Your task to perform on an android device: change your default location settings in chrome Image 0: 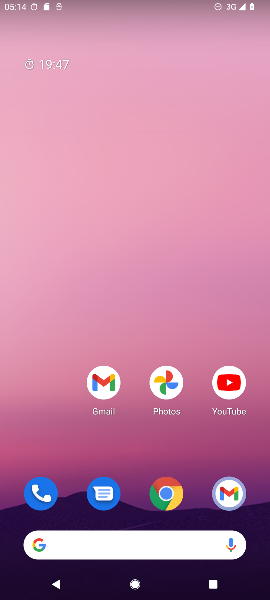
Step 0: press home button
Your task to perform on an android device: change your default location settings in chrome Image 1: 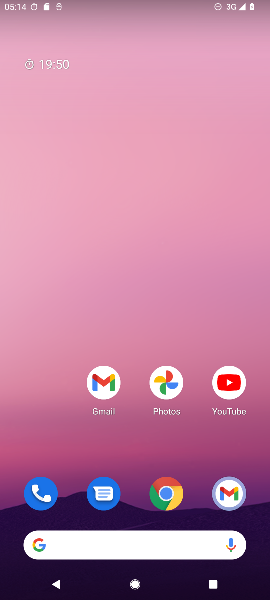
Step 1: drag from (60, 453) to (60, 144)
Your task to perform on an android device: change your default location settings in chrome Image 2: 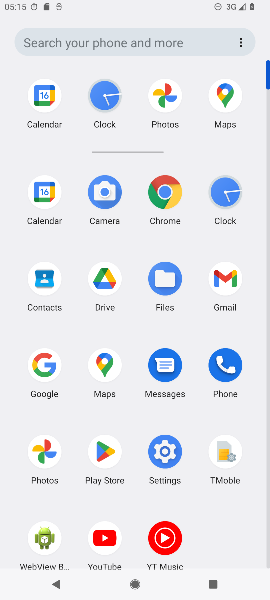
Step 2: click (174, 197)
Your task to perform on an android device: change your default location settings in chrome Image 3: 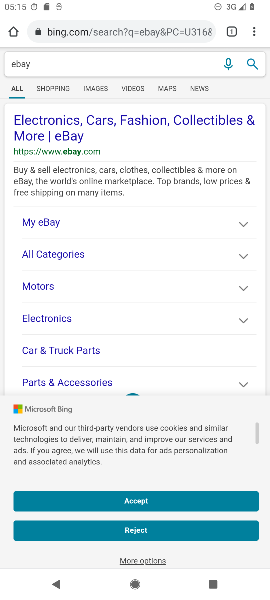
Step 3: click (253, 29)
Your task to perform on an android device: change your default location settings in chrome Image 4: 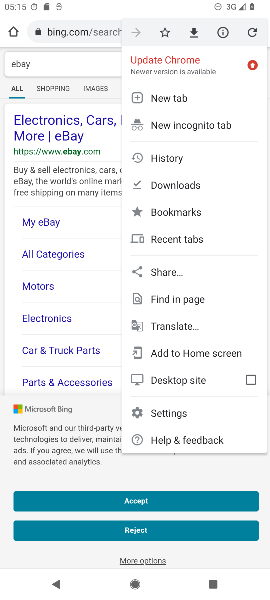
Step 4: click (171, 413)
Your task to perform on an android device: change your default location settings in chrome Image 5: 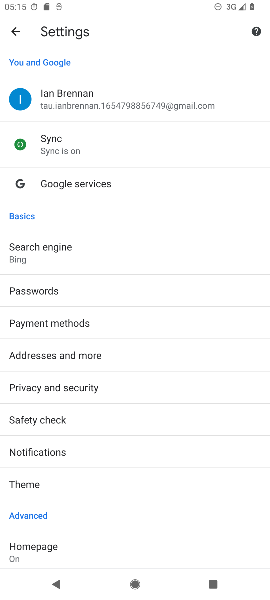
Step 5: drag from (175, 475) to (165, 358)
Your task to perform on an android device: change your default location settings in chrome Image 6: 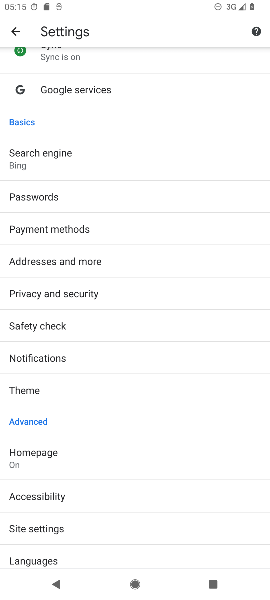
Step 6: drag from (147, 492) to (151, 379)
Your task to perform on an android device: change your default location settings in chrome Image 7: 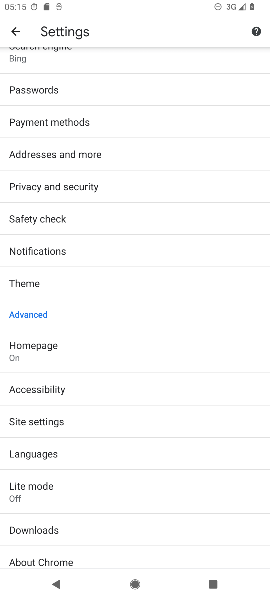
Step 7: click (141, 416)
Your task to perform on an android device: change your default location settings in chrome Image 8: 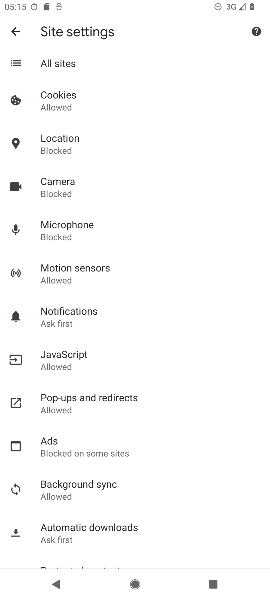
Step 8: drag from (187, 156) to (220, 350)
Your task to perform on an android device: change your default location settings in chrome Image 9: 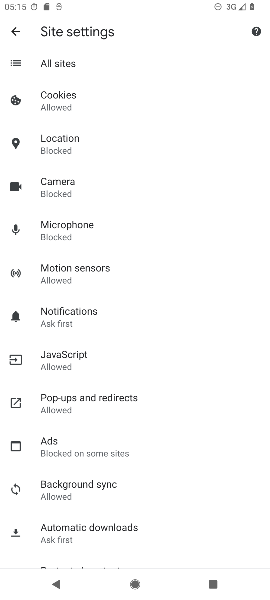
Step 9: click (77, 144)
Your task to perform on an android device: change your default location settings in chrome Image 10: 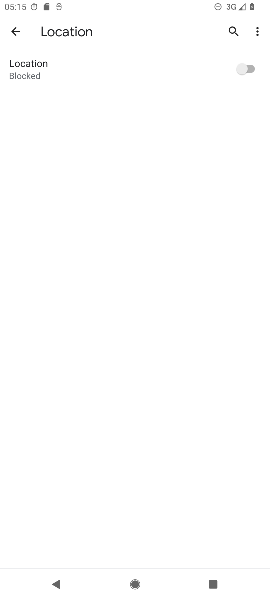
Step 10: click (249, 71)
Your task to perform on an android device: change your default location settings in chrome Image 11: 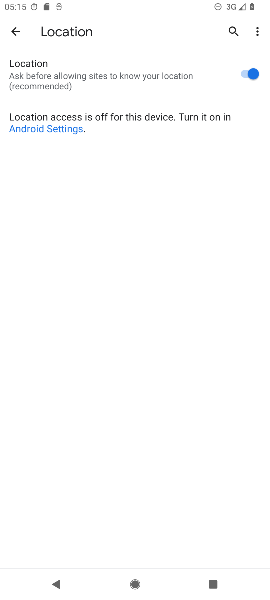
Step 11: task complete